Your task to perform on an android device: Search for a dining table on crateandbarrel.com Image 0: 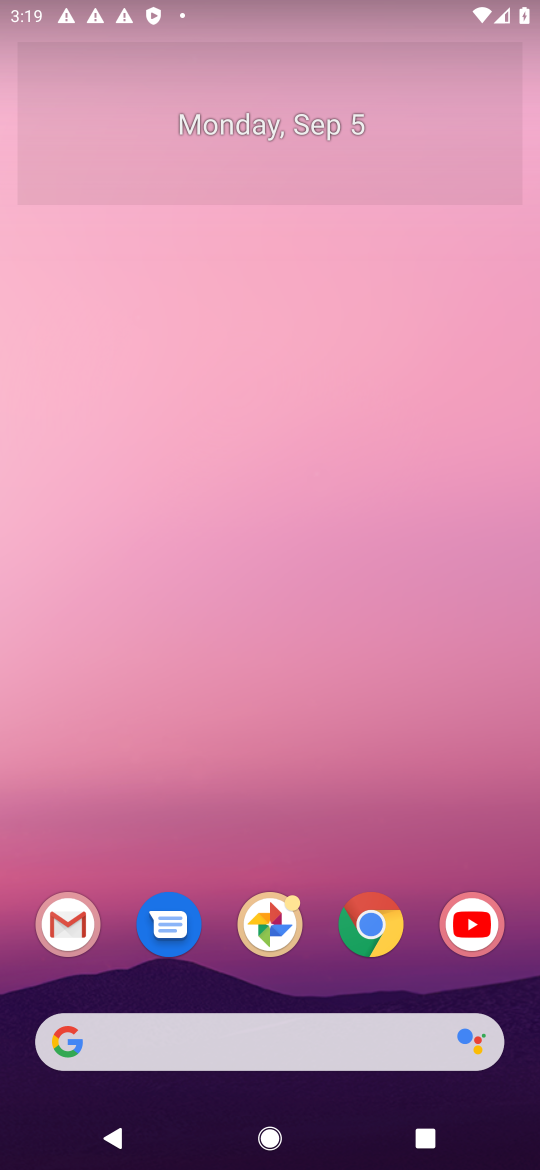
Step 0: drag from (273, 713) to (233, 296)
Your task to perform on an android device: Search for a dining table on crateandbarrel.com Image 1: 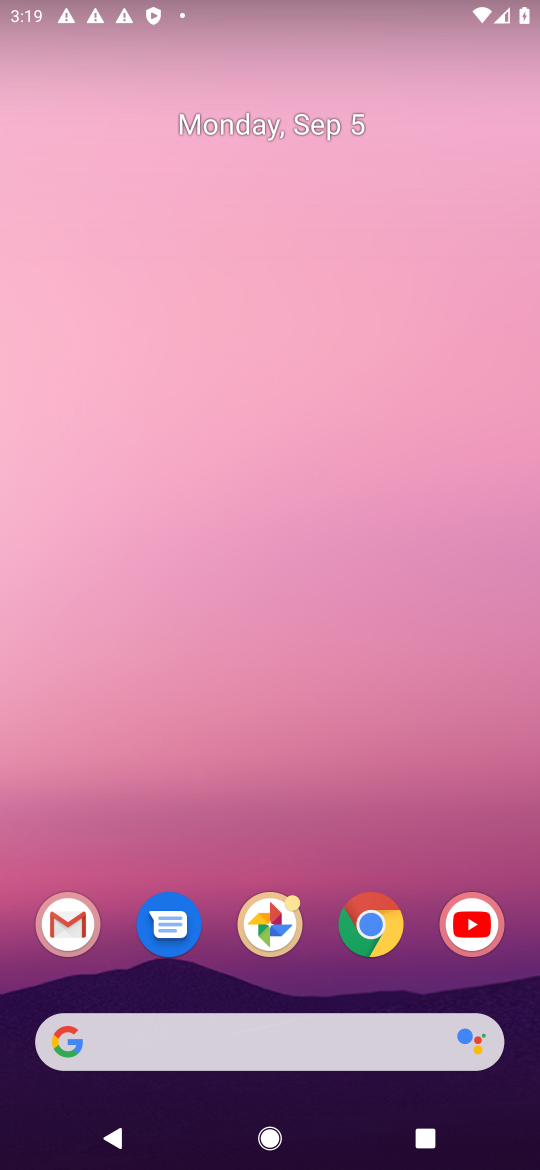
Step 1: drag from (312, 1022) to (261, 97)
Your task to perform on an android device: Search for a dining table on crateandbarrel.com Image 2: 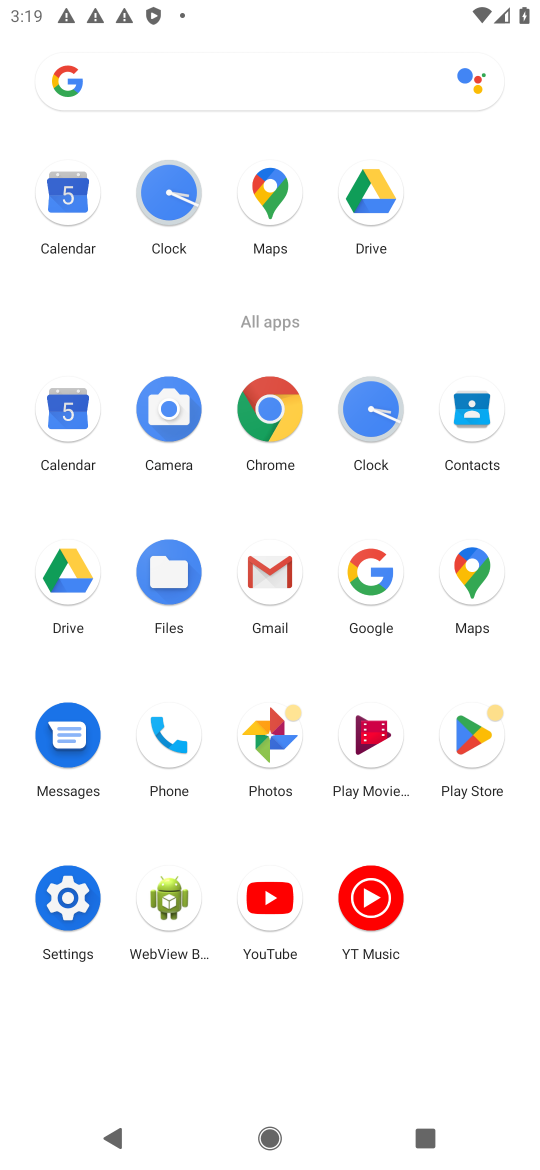
Step 2: click (275, 449)
Your task to perform on an android device: Search for a dining table on crateandbarrel.com Image 3: 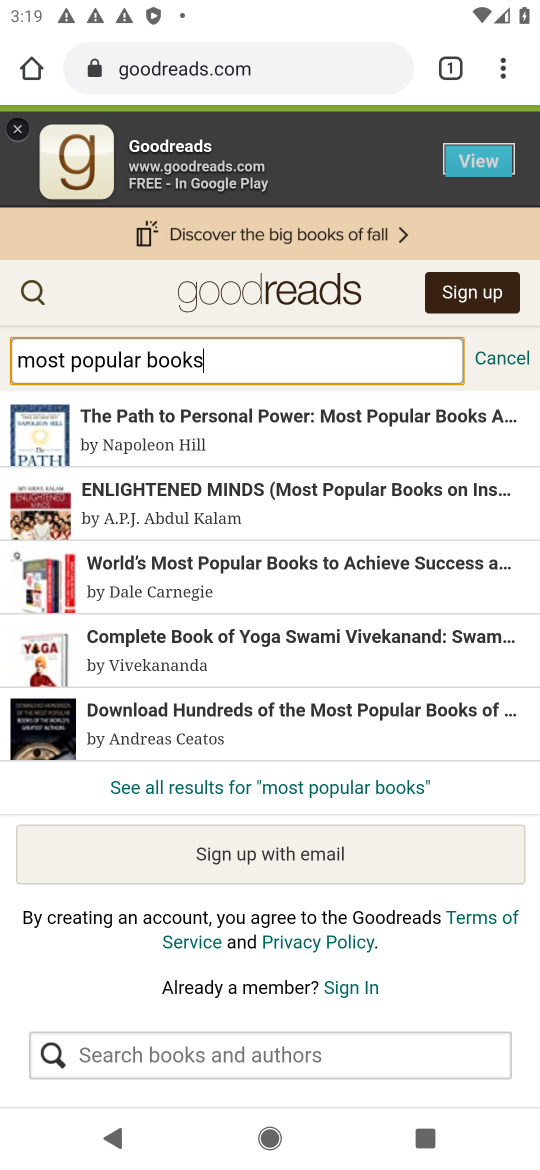
Step 3: click (297, 72)
Your task to perform on an android device: Search for a dining table on crateandbarrel.com Image 4: 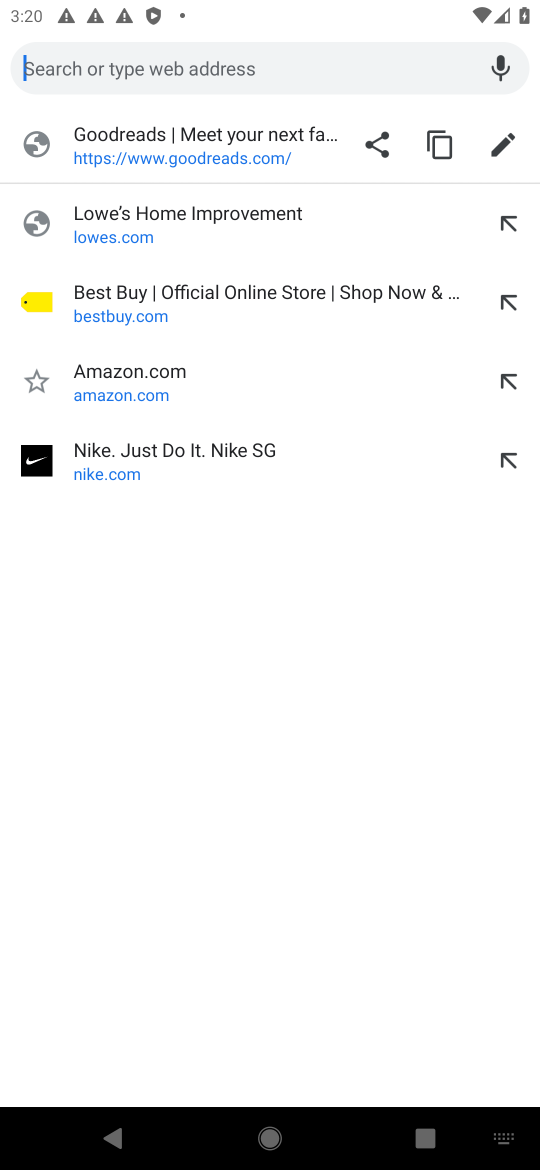
Step 4: type "crate and barrel"
Your task to perform on an android device: Search for a dining table on crateandbarrel.com Image 5: 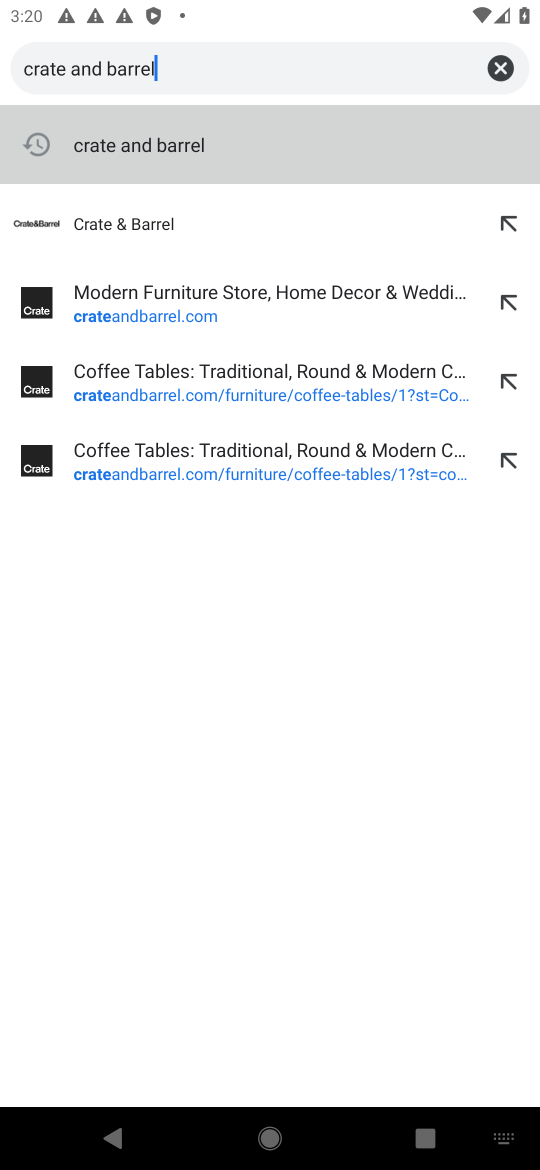
Step 5: click (222, 230)
Your task to perform on an android device: Search for a dining table on crateandbarrel.com Image 6: 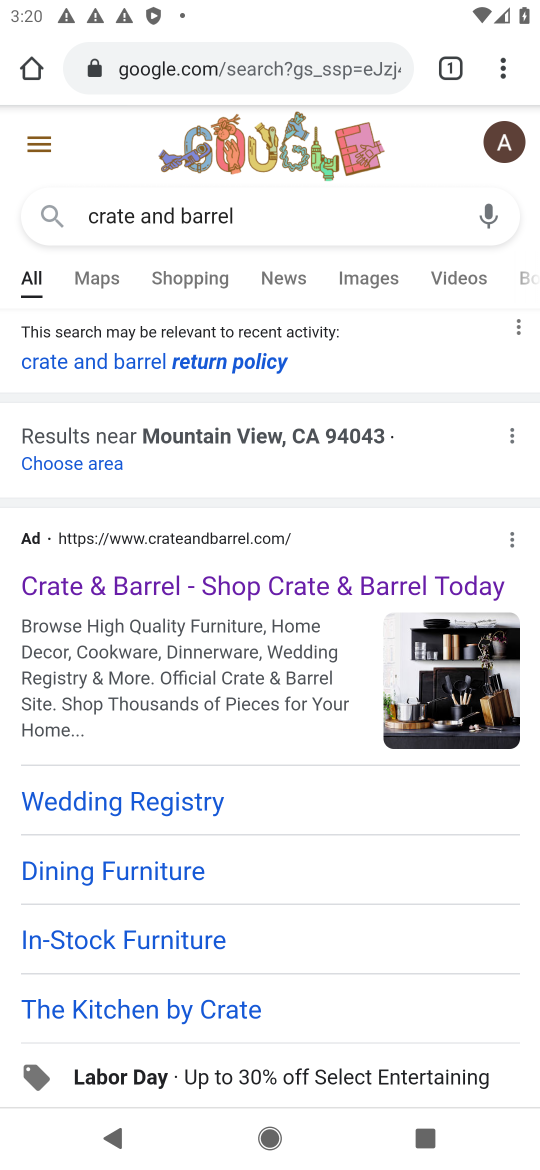
Step 6: drag from (186, 714) to (276, 174)
Your task to perform on an android device: Search for a dining table on crateandbarrel.com Image 7: 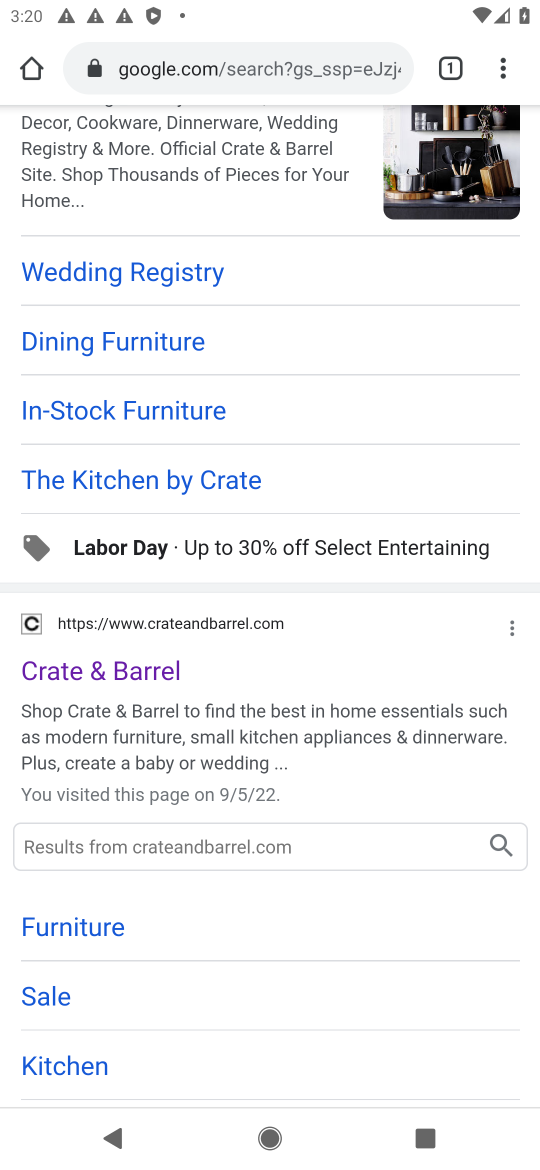
Step 7: click (93, 660)
Your task to perform on an android device: Search for a dining table on crateandbarrel.com Image 8: 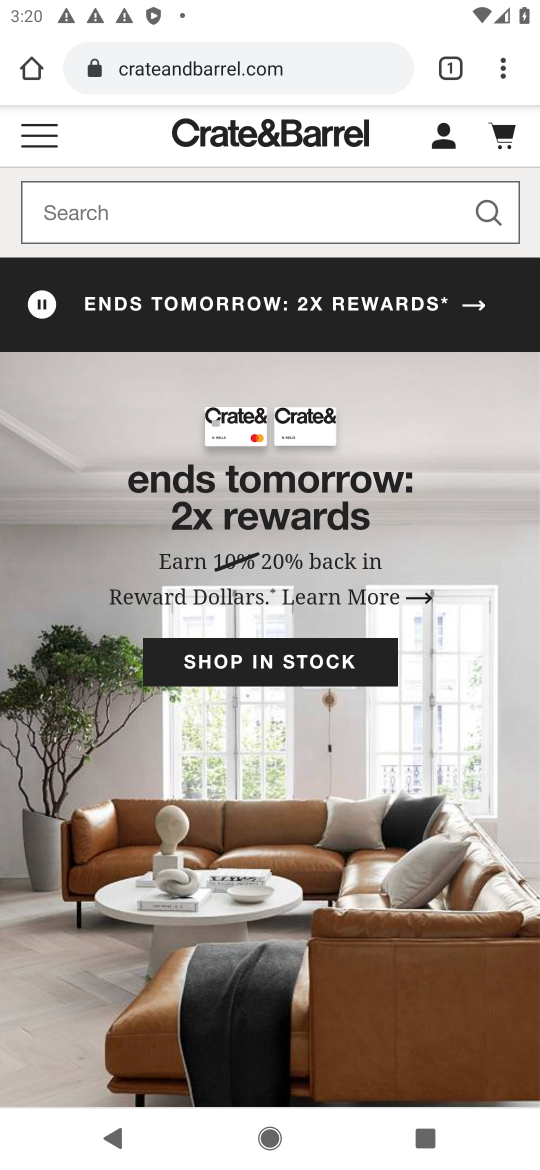
Step 8: click (308, 208)
Your task to perform on an android device: Search for a dining table on crateandbarrel.com Image 9: 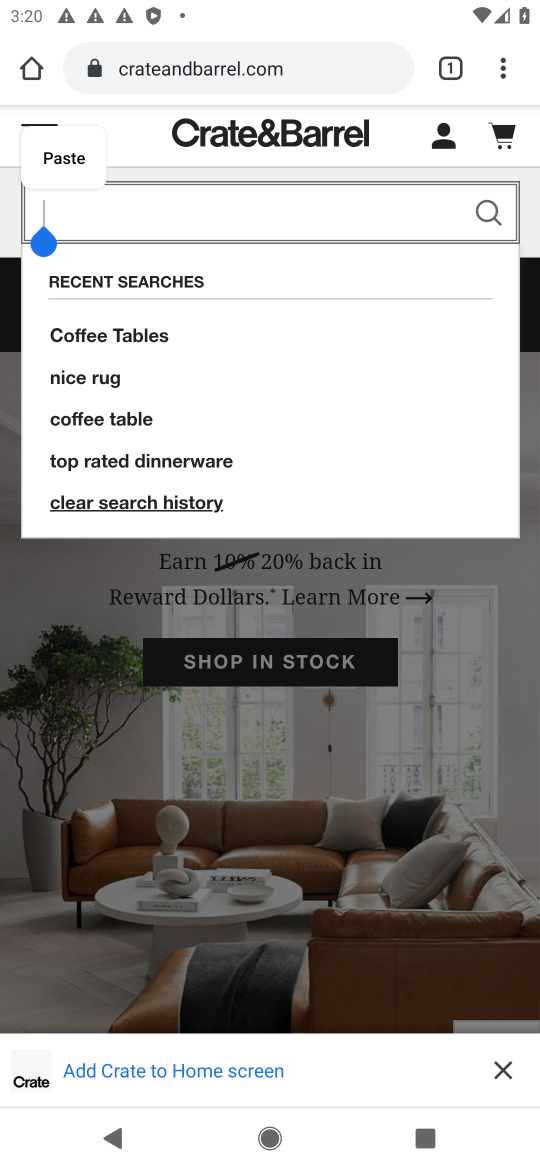
Step 9: click (293, 208)
Your task to perform on an android device: Search for a dining table on crateandbarrel.com Image 10: 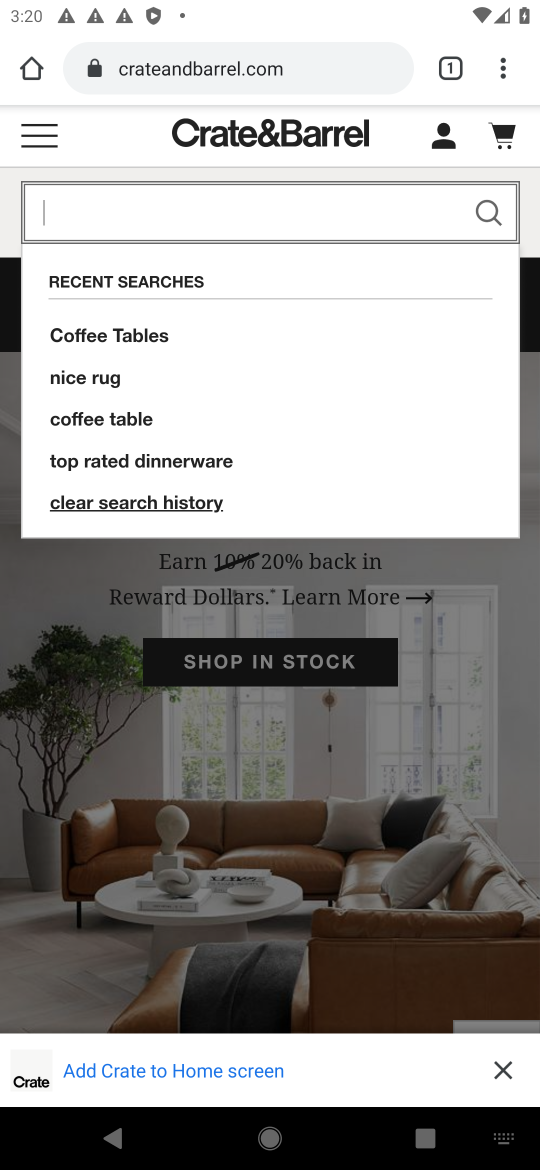
Step 10: type "dining table"
Your task to perform on an android device: Search for a dining table on crateandbarrel.com Image 11: 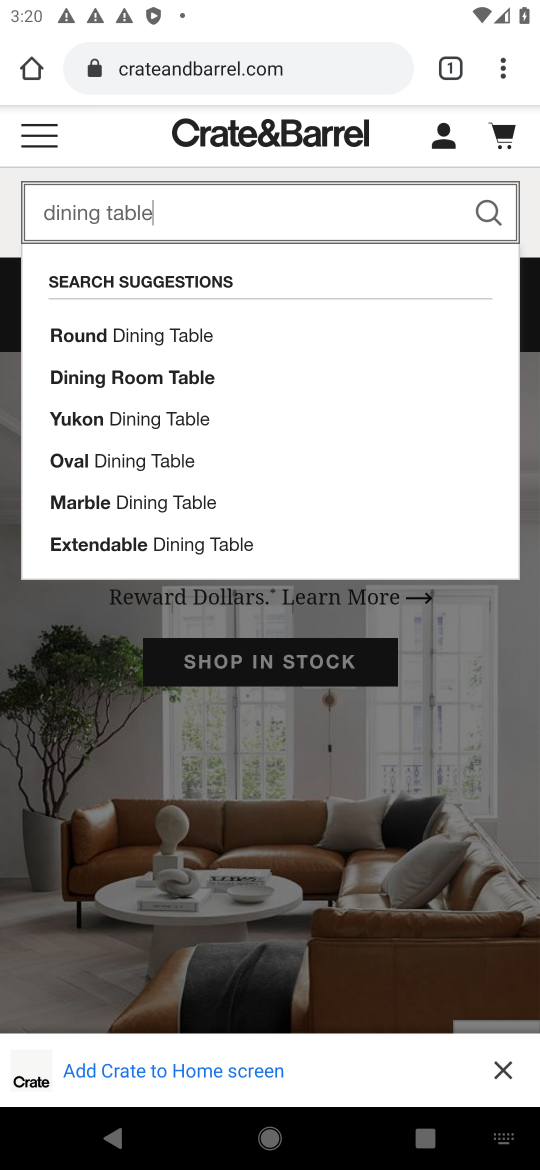
Step 11: click (491, 211)
Your task to perform on an android device: Search for a dining table on crateandbarrel.com Image 12: 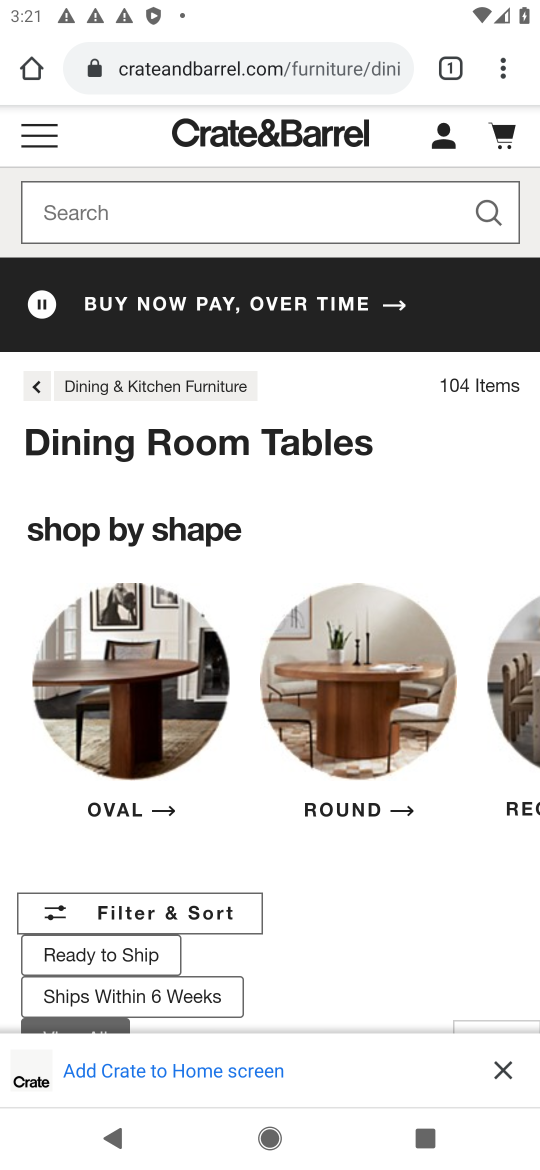
Step 12: task complete